Your task to perform on an android device: Search for the best books of all time on Goodreads Image 0: 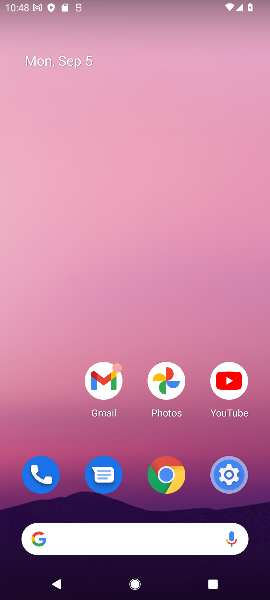
Step 0: click (126, 538)
Your task to perform on an android device: Search for the best books of all time on Goodreads Image 1: 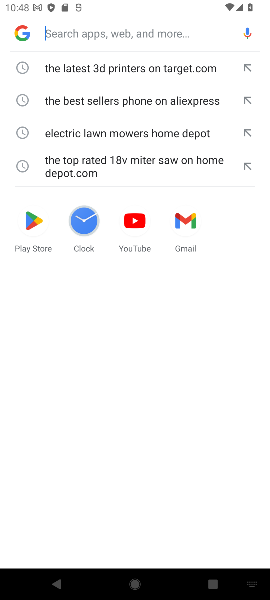
Step 1: type "the best books of all time on Goodreads"
Your task to perform on an android device: Search for the best books of all time on Goodreads Image 2: 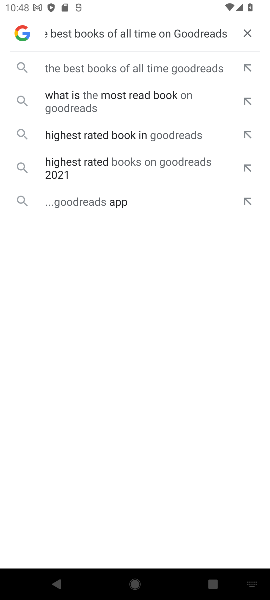
Step 2: click (136, 71)
Your task to perform on an android device: Search for the best books of all time on Goodreads Image 3: 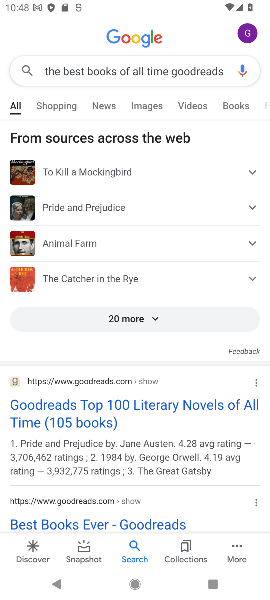
Step 3: task complete